Your task to perform on an android device: uninstall "McDonald's" Image 0: 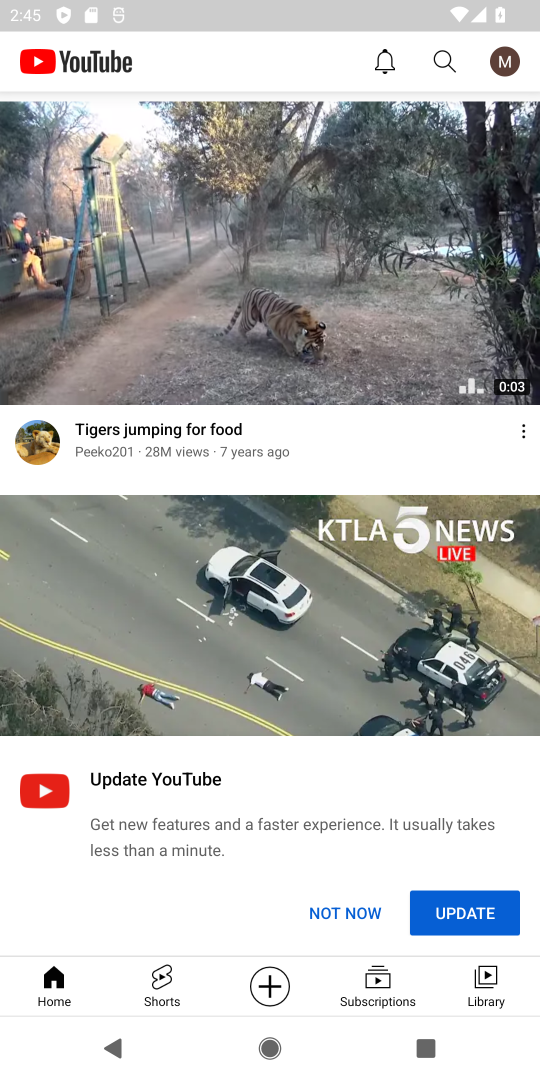
Step 0: press home button
Your task to perform on an android device: uninstall "McDonald's" Image 1: 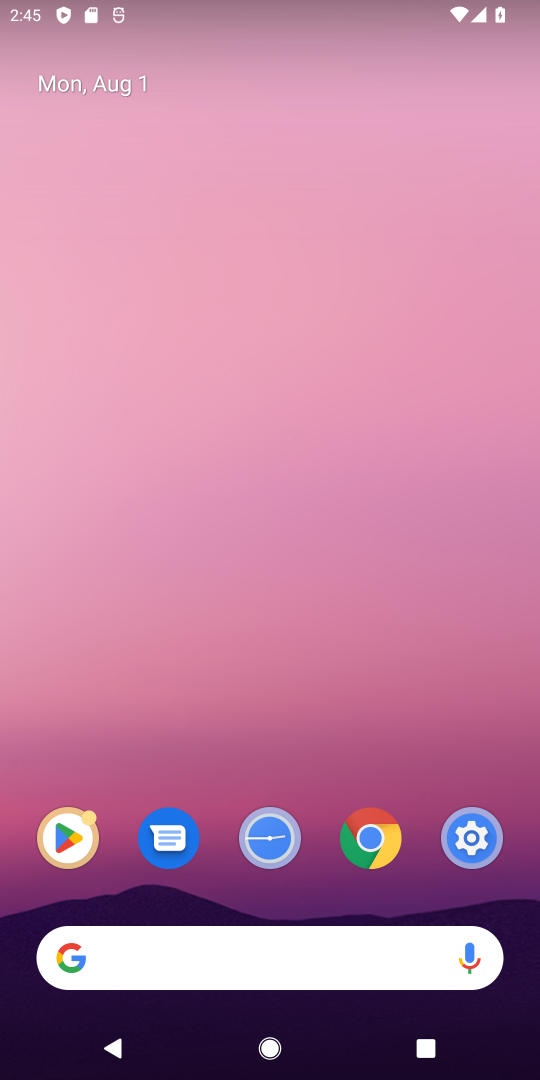
Step 1: click (52, 836)
Your task to perform on an android device: uninstall "McDonald's" Image 2: 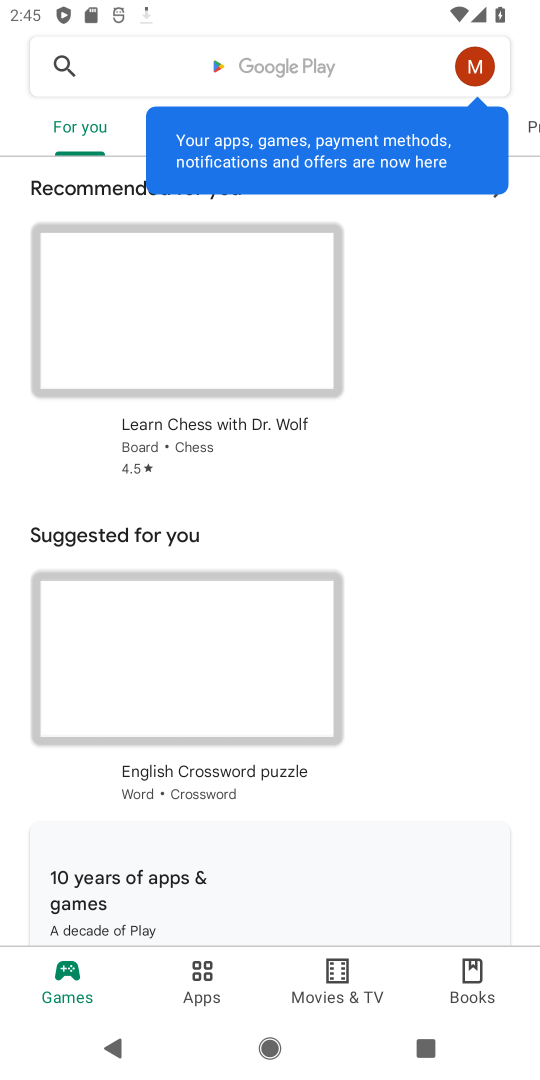
Step 2: click (274, 71)
Your task to perform on an android device: uninstall "McDonald's" Image 3: 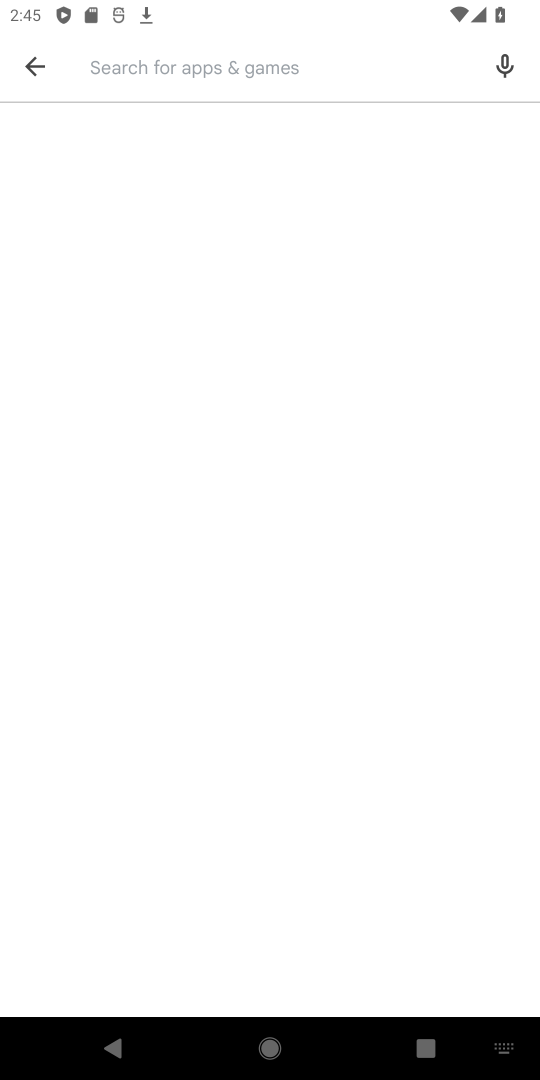
Step 3: type "McDonald's"
Your task to perform on an android device: uninstall "McDonald's" Image 4: 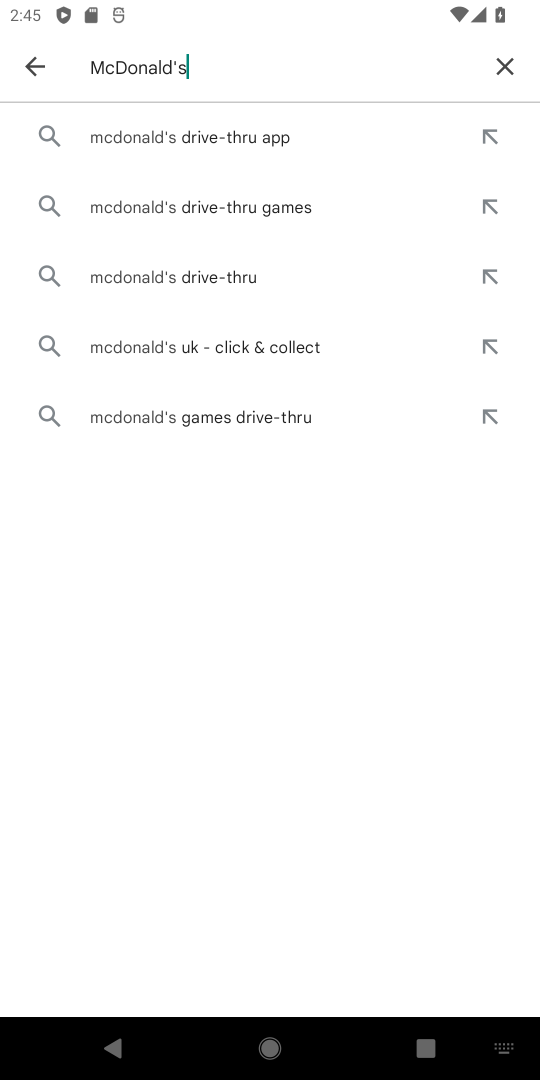
Step 4: click (237, 137)
Your task to perform on an android device: uninstall "McDonald's" Image 5: 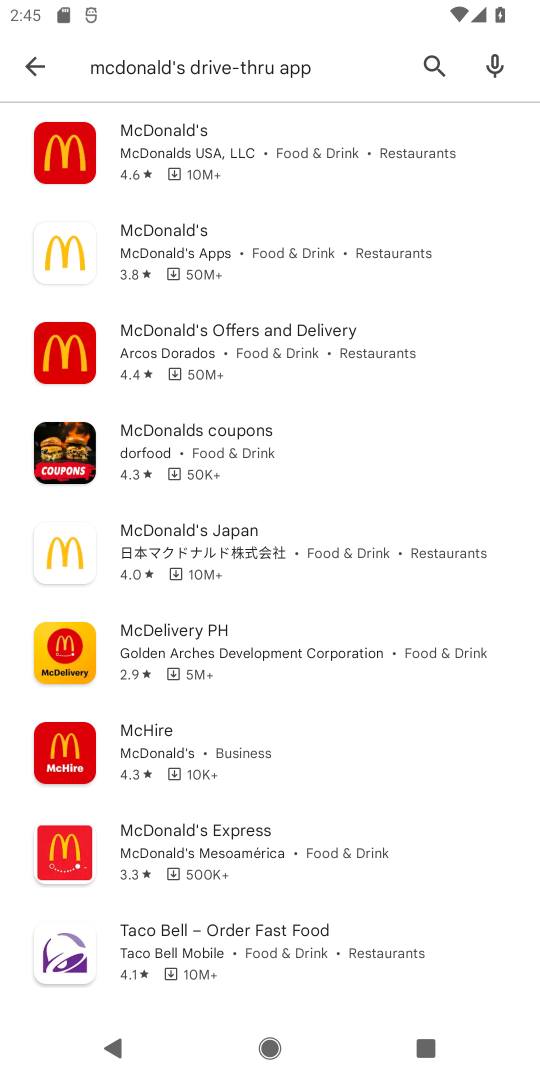
Step 5: click (273, 131)
Your task to perform on an android device: uninstall "McDonald's" Image 6: 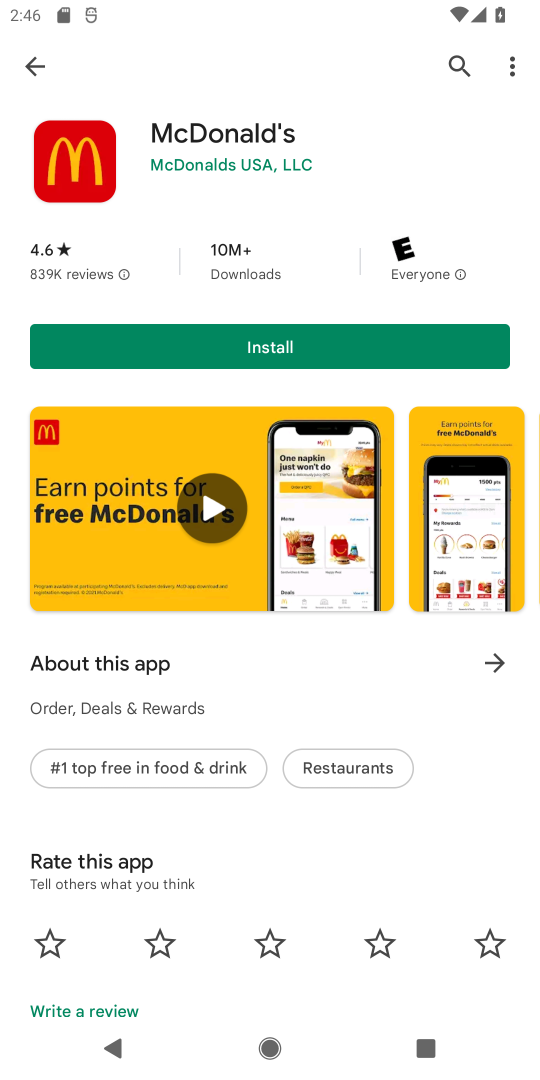
Step 6: task complete